Your task to perform on an android device: What's on my calendar tomorrow? Image 0: 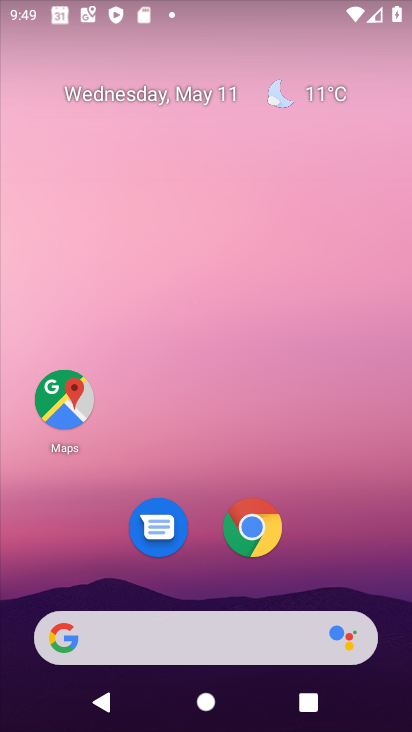
Step 0: drag from (351, 543) to (326, 83)
Your task to perform on an android device: What's on my calendar tomorrow? Image 1: 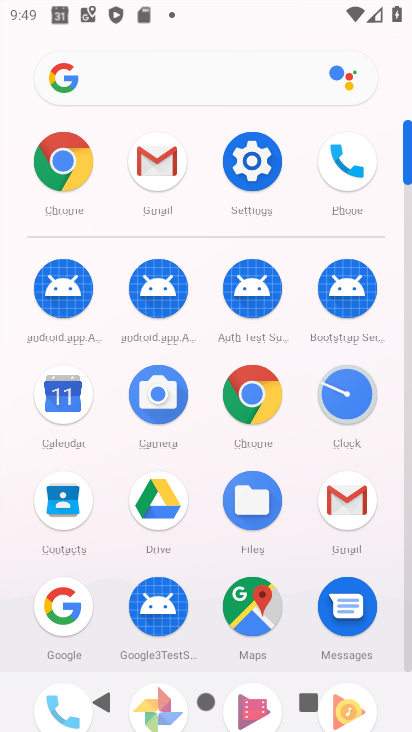
Step 1: click (49, 401)
Your task to perform on an android device: What's on my calendar tomorrow? Image 2: 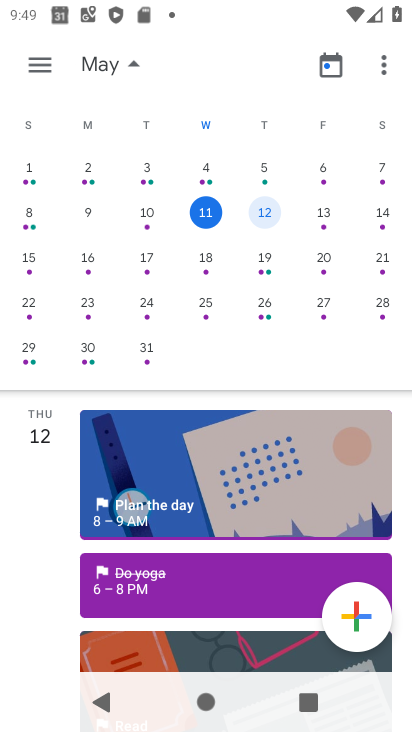
Step 2: click (266, 216)
Your task to perform on an android device: What's on my calendar tomorrow? Image 3: 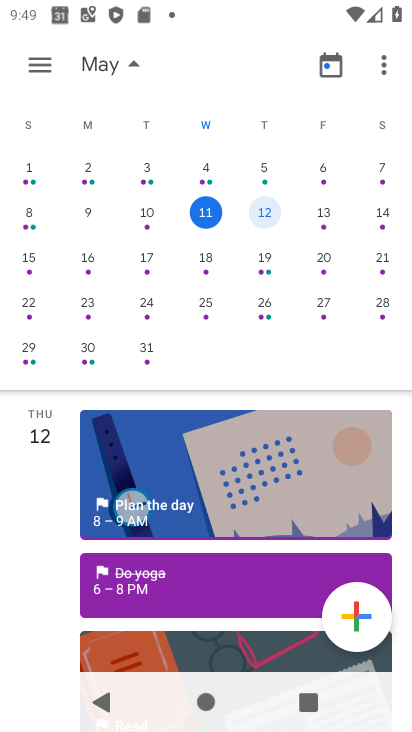
Step 3: task complete